Your task to perform on an android device: check google app version Image 0: 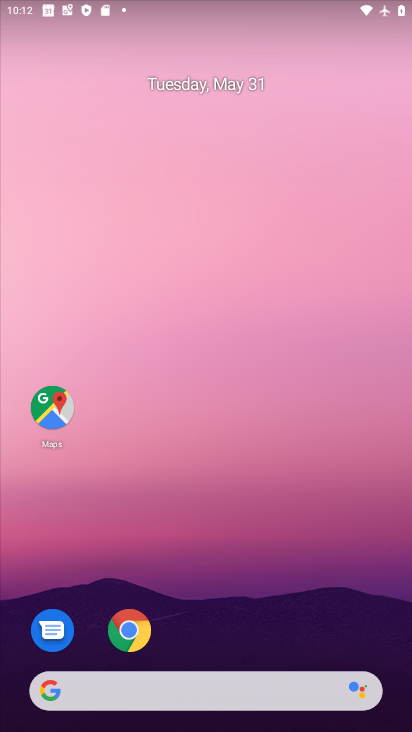
Step 0: drag from (254, 634) to (275, 194)
Your task to perform on an android device: check google app version Image 1: 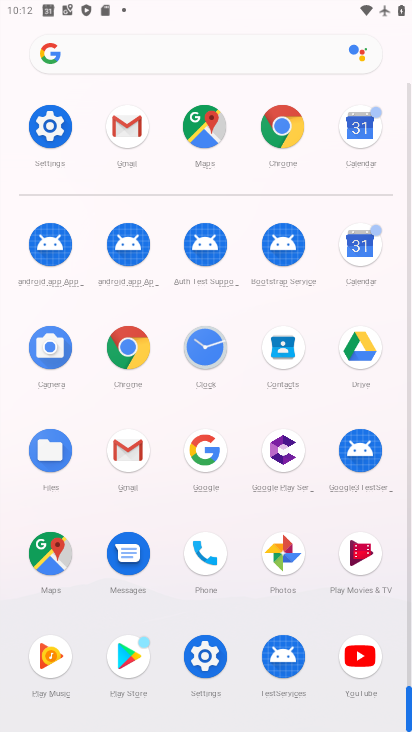
Step 1: click (201, 438)
Your task to perform on an android device: check google app version Image 2: 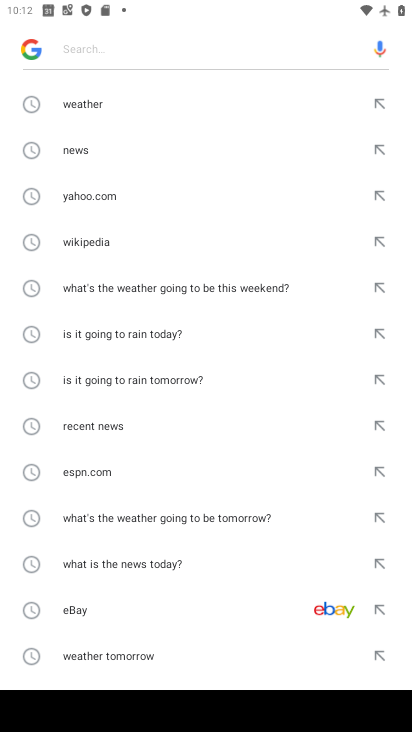
Step 2: click (28, 47)
Your task to perform on an android device: check google app version Image 3: 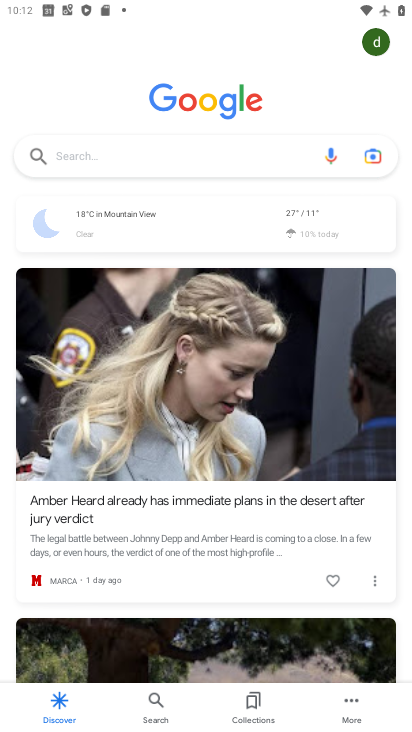
Step 3: click (345, 695)
Your task to perform on an android device: check google app version Image 4: 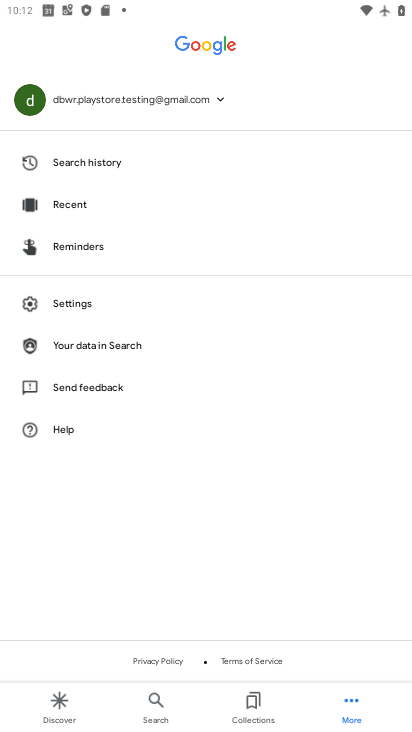
Step 4: click (82, 302)
Your task to perform on an android device: check google app version Image 5: 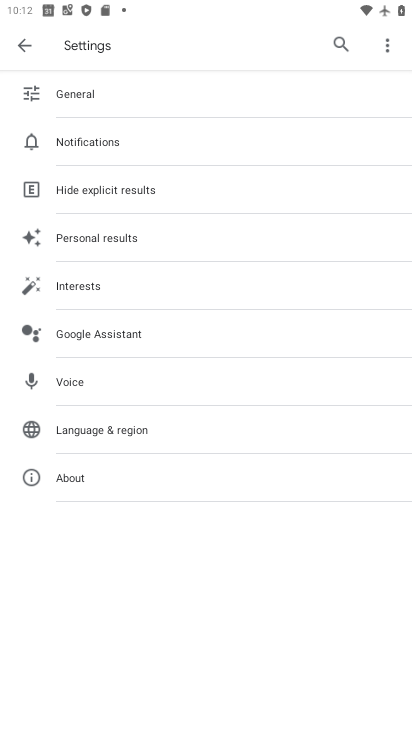
Step 5: click (114, 486)
Your task to perform on an android device: check google app version Image 6: 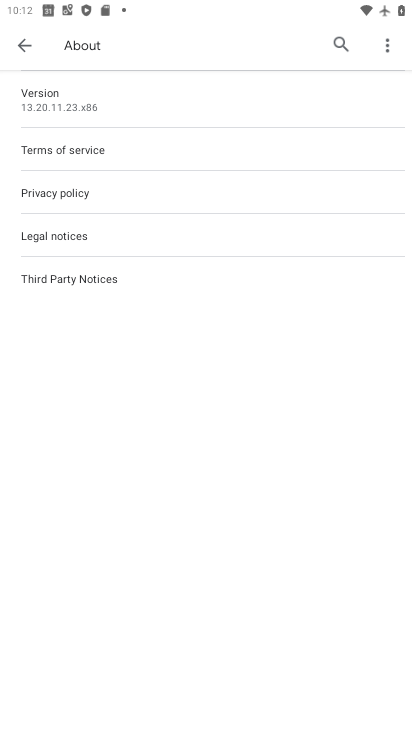
Step 6: task complete